Your task to perform on an android device: turn on location history Image 0: 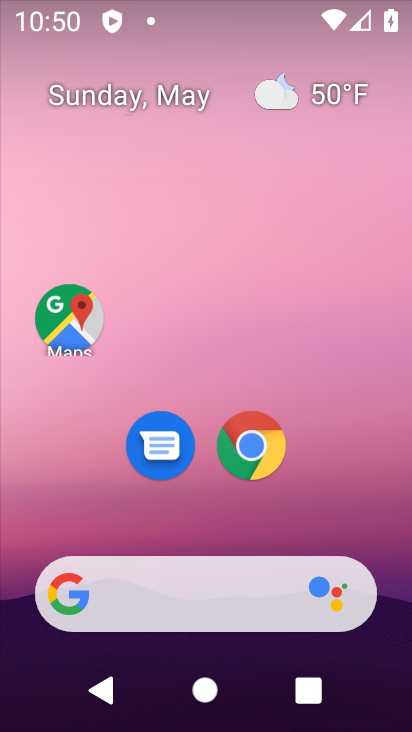
Step 0: drag from (224, 532) to (278, 35)
Your task to perform on an android device: turn on location history Image 1: 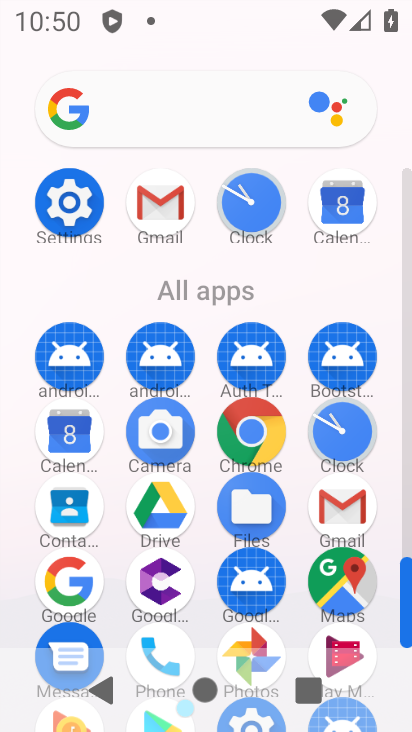
Step 1: click (75, 226)
Your task to perform on an android device: turn on location history Image 2: 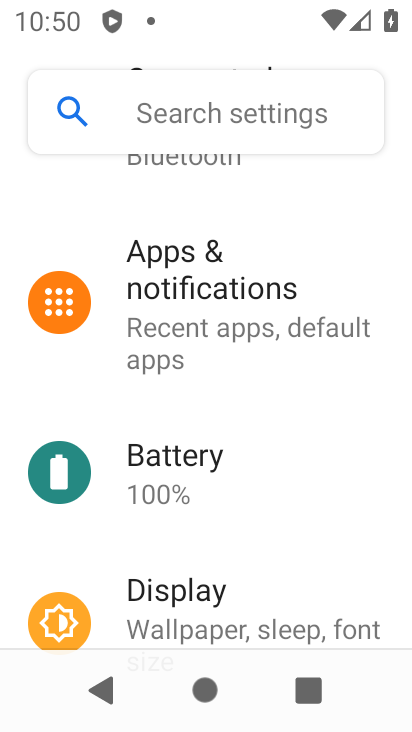
Step 2: drag from (248, 541) to (262, 237)
Your task to perform on an android device: turn on location history Image 3: 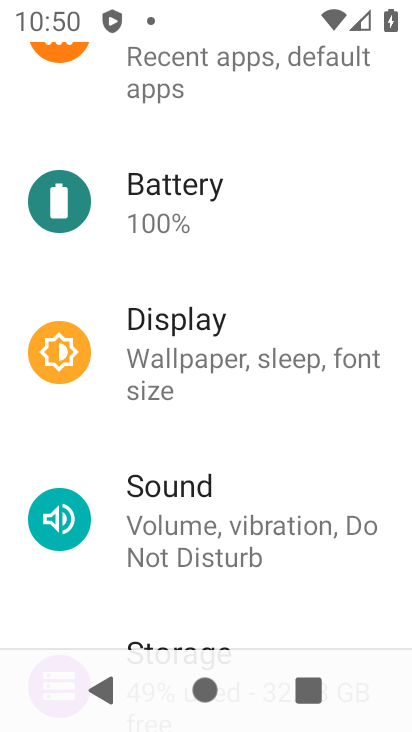
Step 3: drag from (273, 462) to (278, 129)
Your task to perform on an android device: turn on location history Image 4: 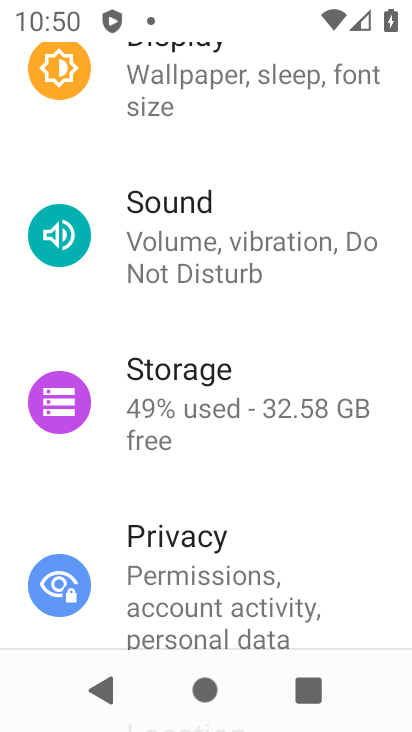
Step 4: drag from (246, 604) to (273, 258)
Your task to perform on an android device: turn on location history Image 5: 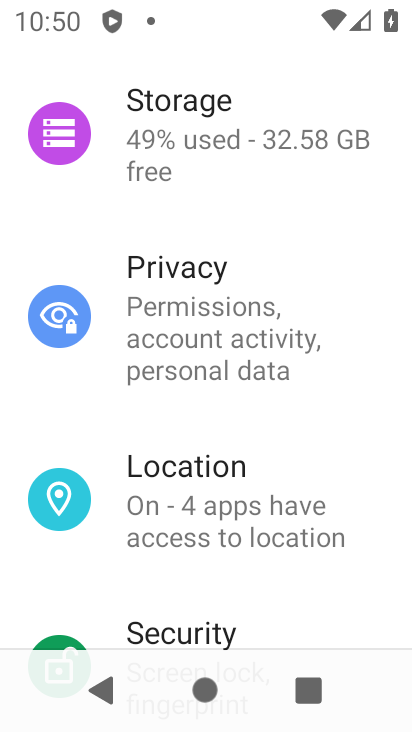
Step 5: click (198, 504)
Your task to perform on an android device: turn on location history Image 6: 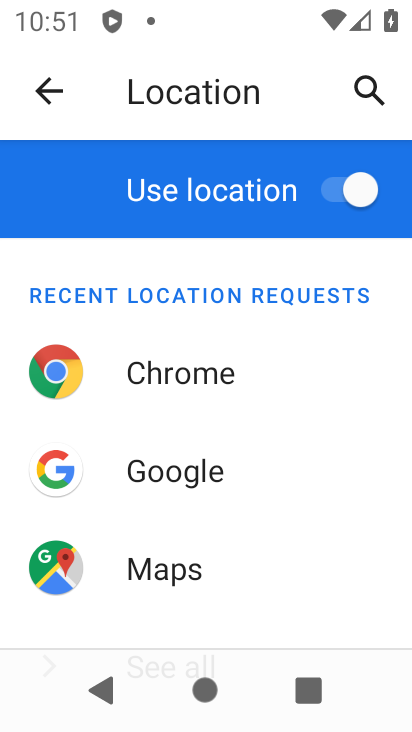
Step 6: drag from (196, 571) to (211, 254)
Your task to perform on an android device: turn on location history Image 7: 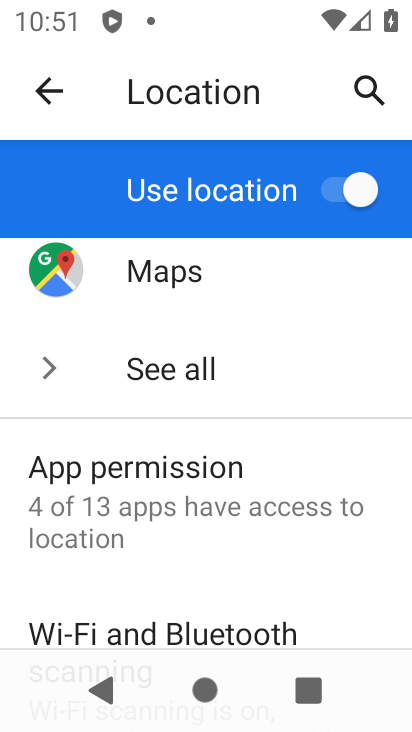
Step 7: drag from (215, 556) to (243, 327)
Your task to perform on an android device: turn on location history Image 8: 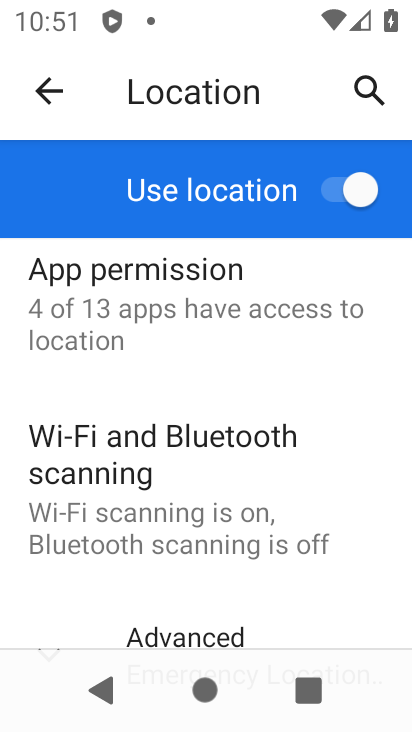
Step 8: drag from (213, 493) to (225, 159)
Your task to perform on an android device: turn on location history Image 9: 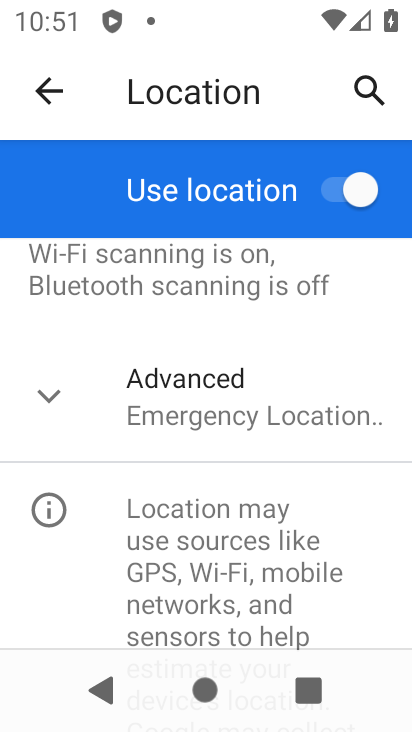
Step 9: click (171, 408)
Your task to perform on an android device: turn on location history Image 10: 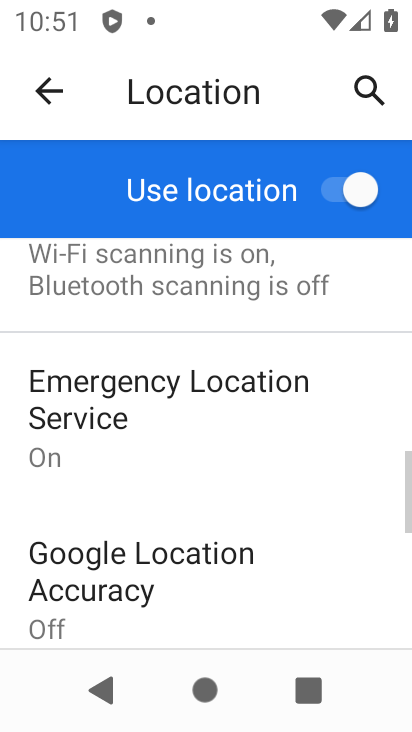
Step 10: drag from (214, 544) to (215, 370)
Your task to perform on an android device: turn on location history Image 11: 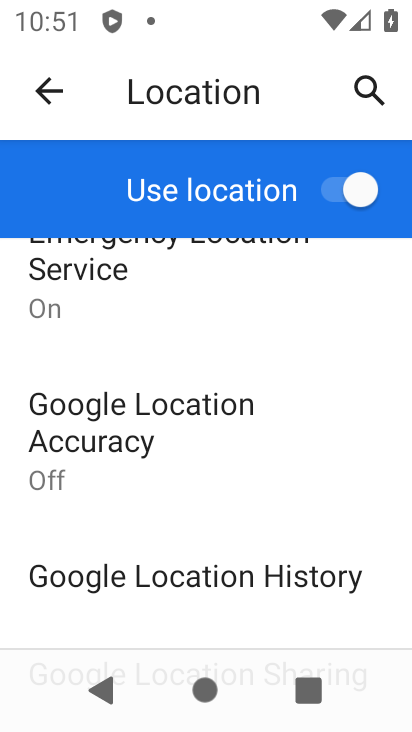
Step 11: click (179, 426)
Your task to perform on an android device: turn on location history Image 12: 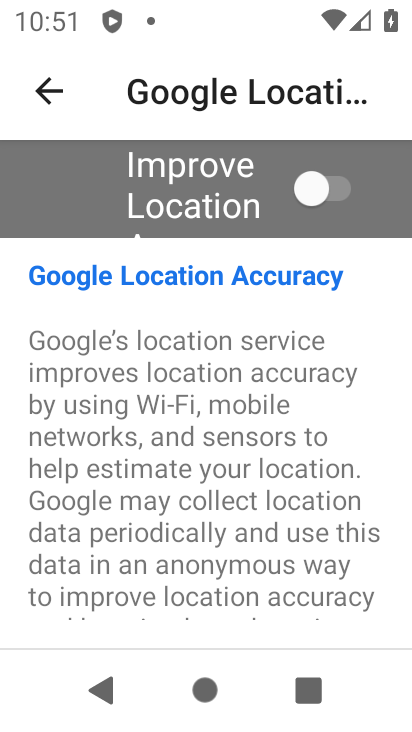
Step 12: click (339, 198)
Your task to perform on an android device: turn on location history Image 13: 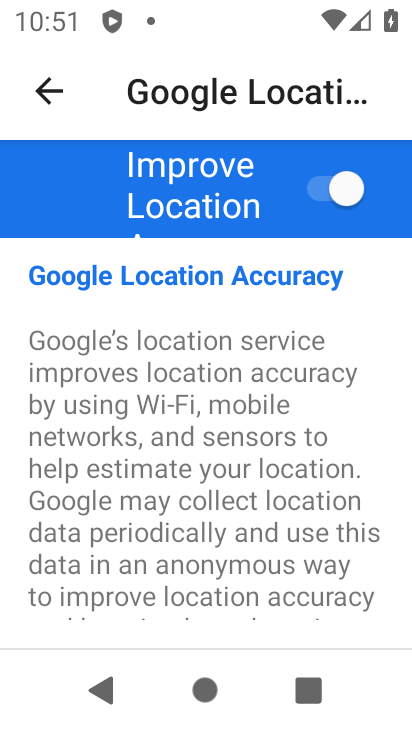
Step 13: task complete